Your task to perform on an android device: Go to display settings Image 0: 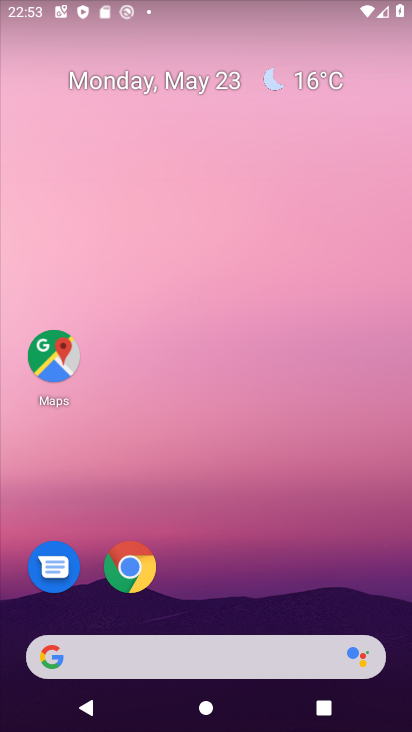
Step 0: drag from (203, 615) to (271, 3)
Your task to perform on an android device: Go to display settings Image 1: 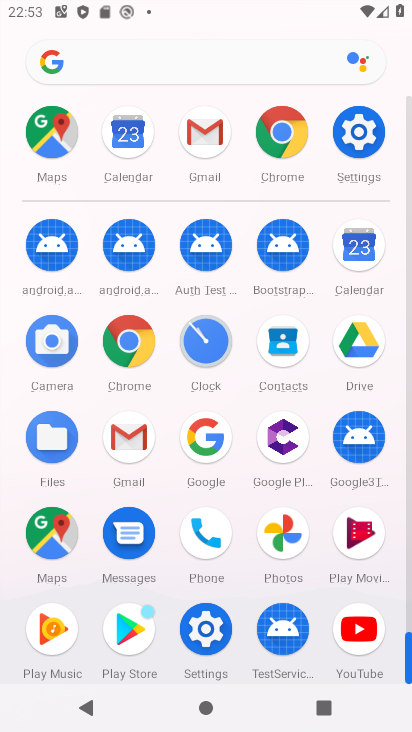
Step 1: click (375, 126)
Your task to perform on an android device: Go to display settings Image 2: 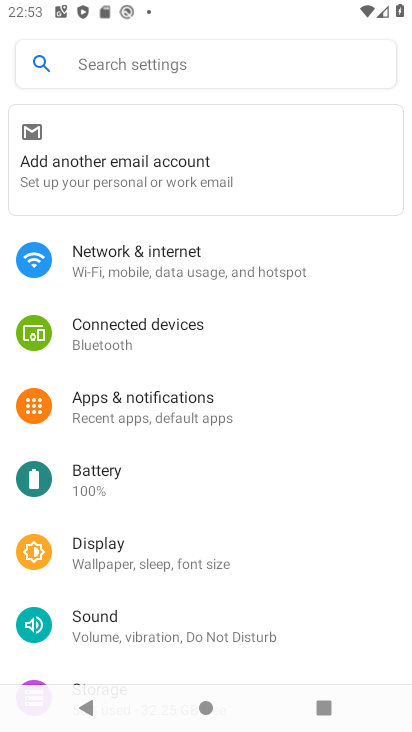
Step 2: click (124, 541)
Your task to perform on an android device: Go to display settings Image 3: 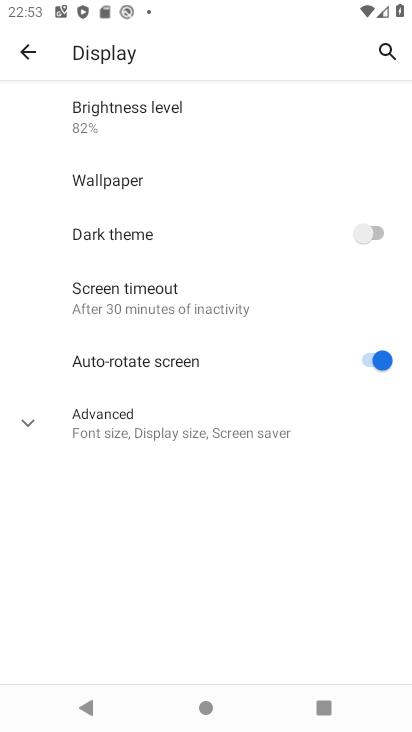
Step 3: task complete